Your task to perform on an android device: toggle wifi Image 0: 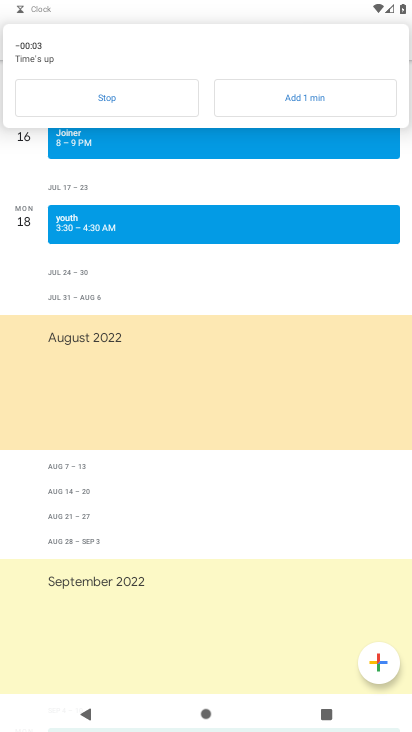
Step 0: press home button
Your task to perform on an android device: toggle wifi Image 1: 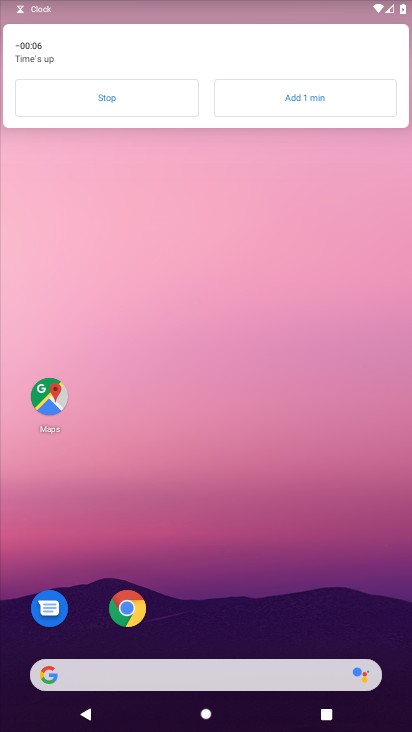
Step 1: drag from (225, 545) to (224, 92)
Your task to perform on an android device: toggle wifi Image 2: 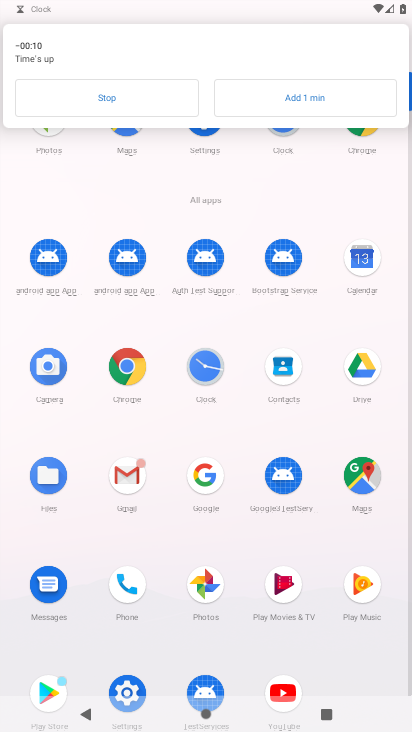
Step 2: click (124, 684)
Your task to perform on an android device: toggle wifi Image 3: 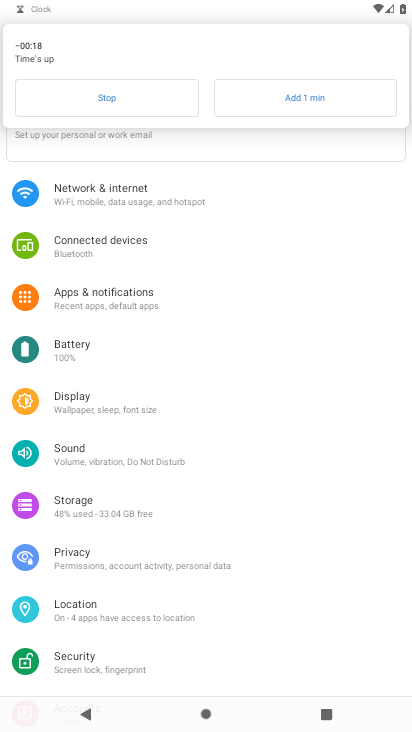
Step 3: click (190, 207)
Your task to perform on an android device: toggle wifi Image 4: 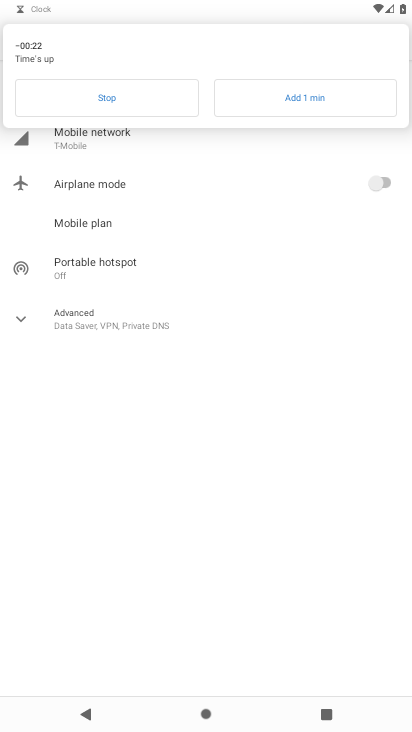
Step 4: click (127, 96)
Your task to perform on an android device: toggle wifi Image 5: 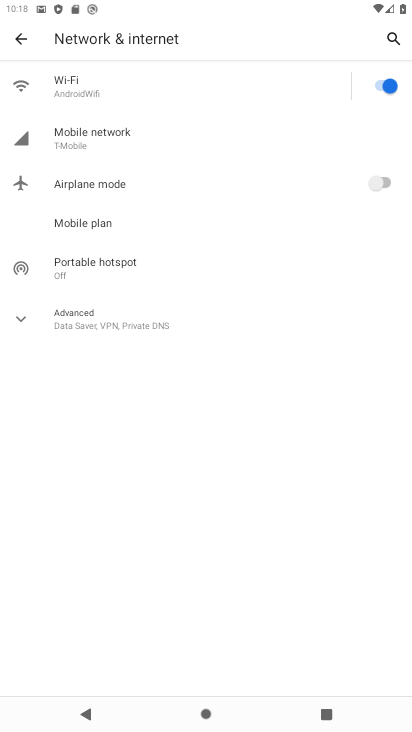
Step 5: click (361, 80)
Your task to perform on an android device: toggle wifi Image 6: 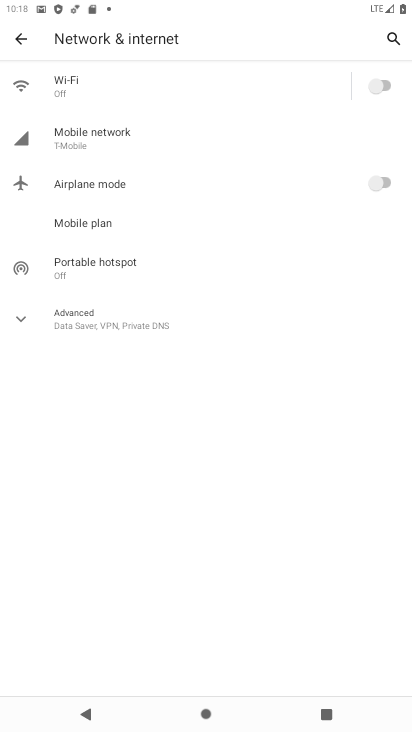
Step 6: task complete